Your task to perform on an android device: turn off airplane mode Image 0: 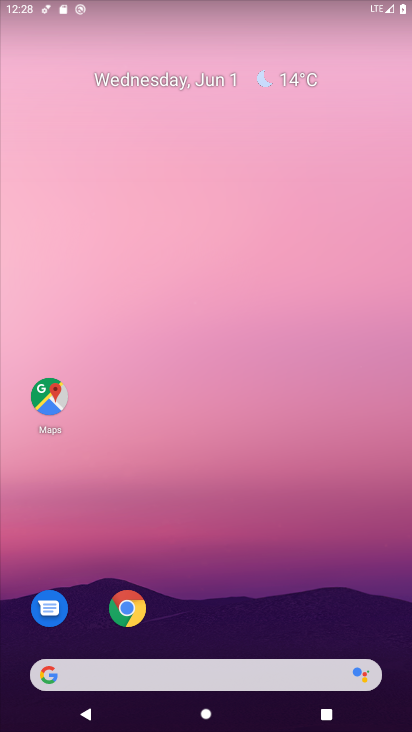
Step 0: drag from (198, 624) to (289, 161)
Your task to perform on an android device: turn off airplane mode Image 1: 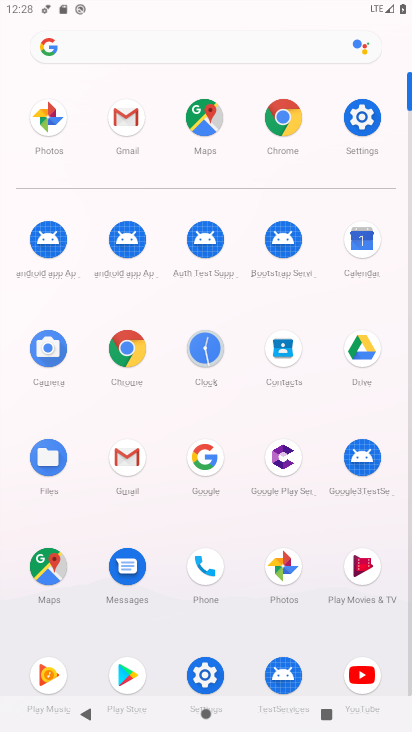
Step 1: click (371, 138)
Your task to perform on an android device: turn off airplane mode Image 2: 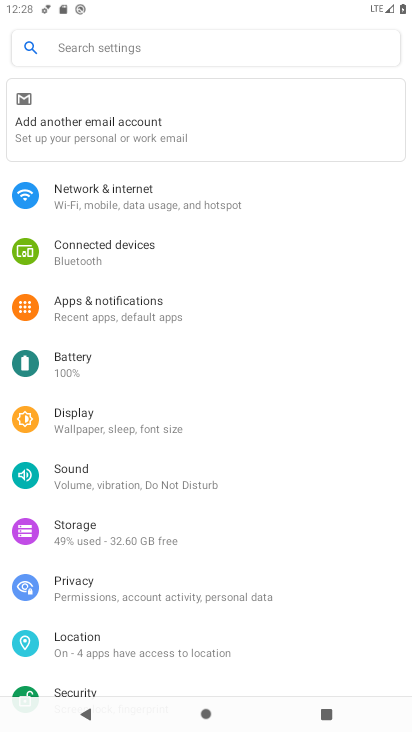
Step 2: click (145, 203)
Your task to perform on an android device: turn off airplane mode Image 3: 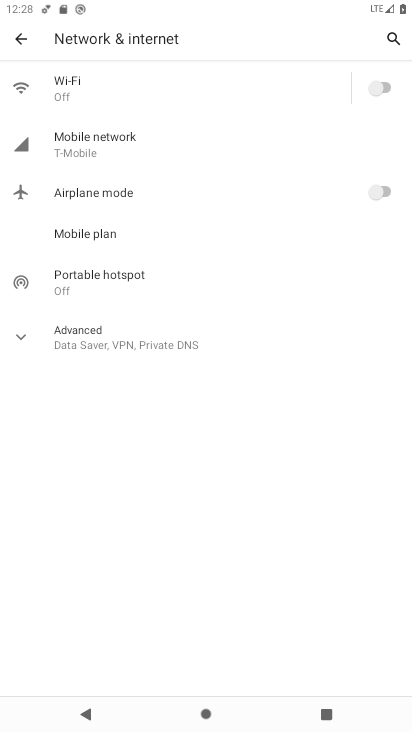
Step 3: task complete